Your task to perform on an android device: open app "Paramount+ | Peak Streaming" Image 0: 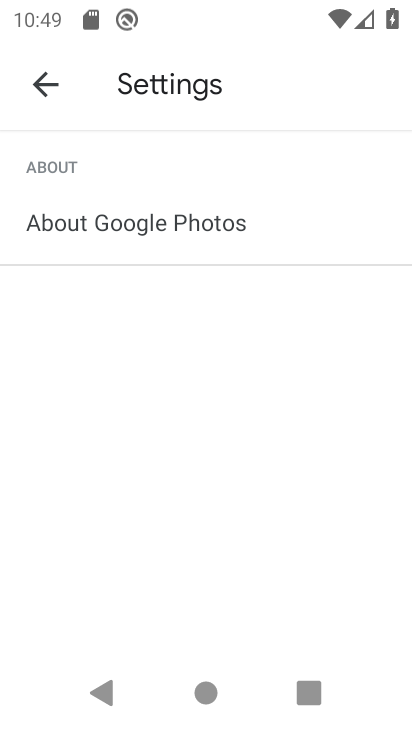
Step 0: press home button
Your task to perform on an android device: open app "Paramount+ | Peak Streaming" Image 1: 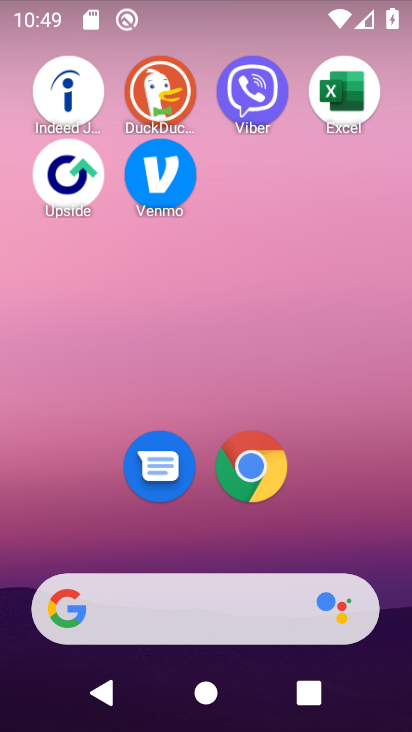
Step 1: drag from (241, 684) to (240, 58)
Your task to perform on an android device: open app "Paramount+ | Peak Streaming" Image 2: 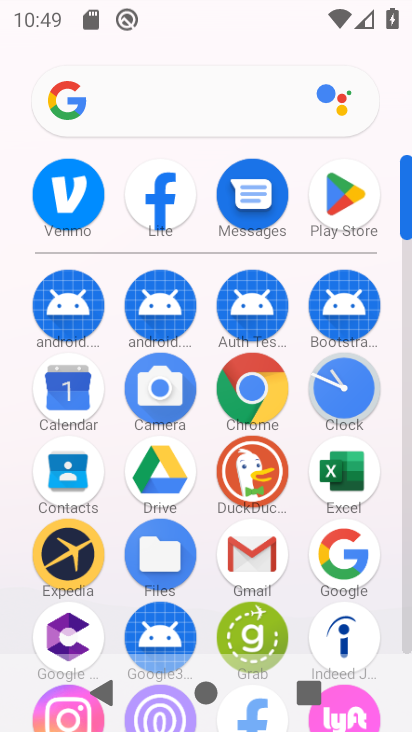
Step 2: click (343, 187)
Your task to perform on an android device: open app "Paramount+ | Peak Streaming" Image 3: 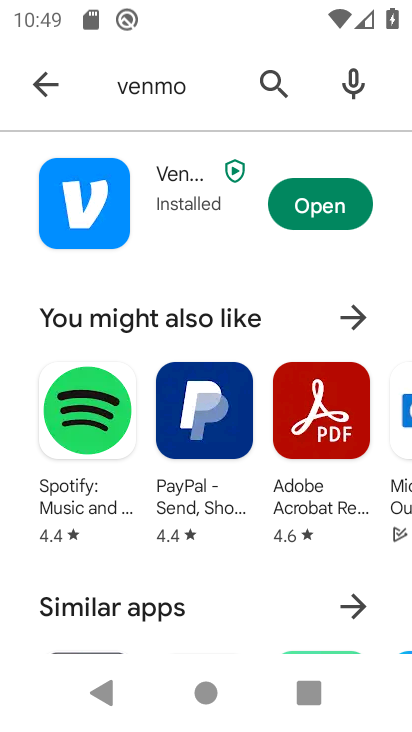
Step 3: click (271, 83)
Your task to perform on an android device: open app "Paramount+ | Peak Streaming" Image 4: 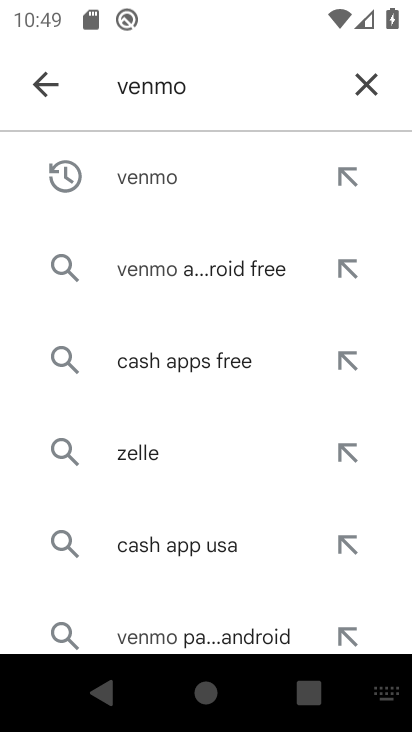
Step 4: click (365, 80)
Your task to perform on an android device: open app "Paramount+ | Peak Streaming" Image 5: 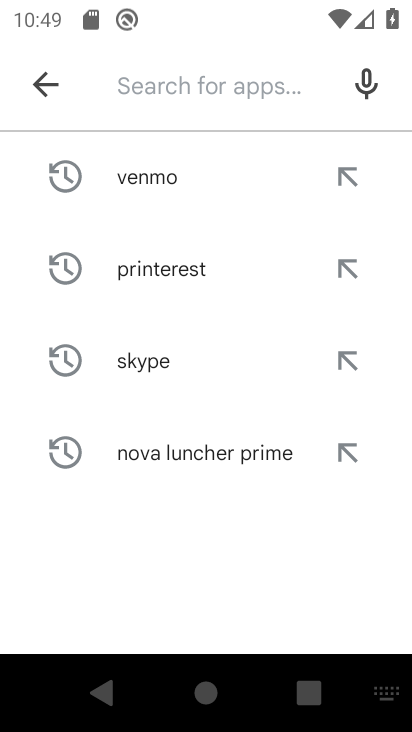
Step 5: type "Paramount+ | Peak Streaming"
Your task to perform on an android device: open app "Paramount+ | Peak Streaming" Image 6: 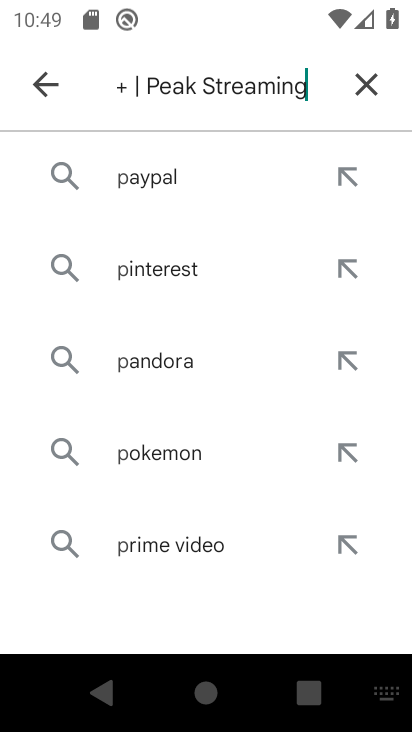
Step 6: type ""
Your task to perform on an android device: open app "Paramount+ | Peak Streaming" Image 7: 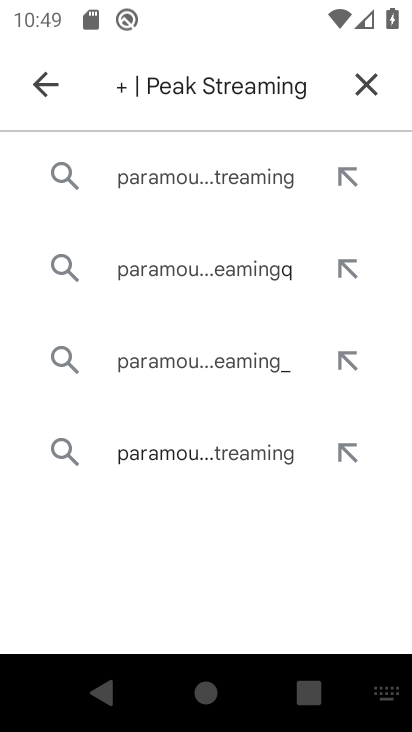
Step 7: click (238, 171)
Your task to perform on an android device: open app "Paramount+ | Peak Streaming" Image 8: 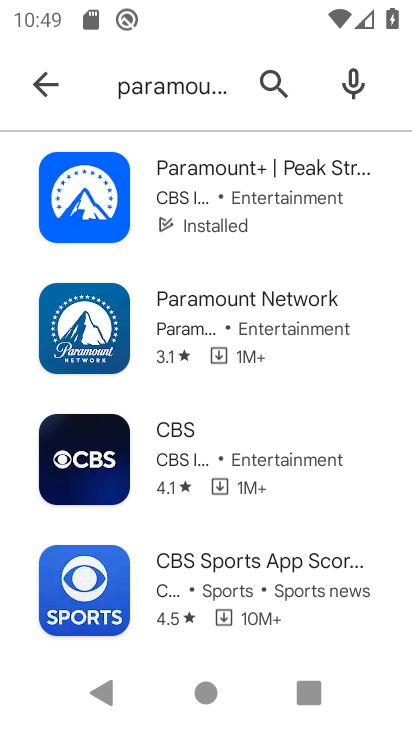
Step 8: click (238, 172)
Your task to perform on an android device: open app "Paramount+ | Peak Streaming" Image 9: 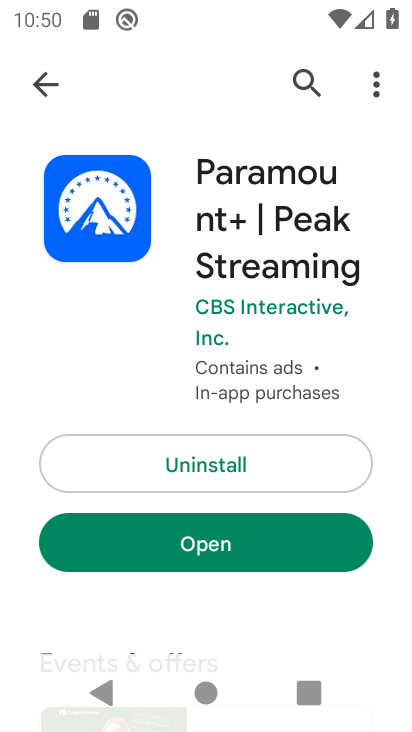
Step 9: click (215, 544)
Your task to perform on an android device: open app "Paramount+ | Peak Streaming" Image 10: 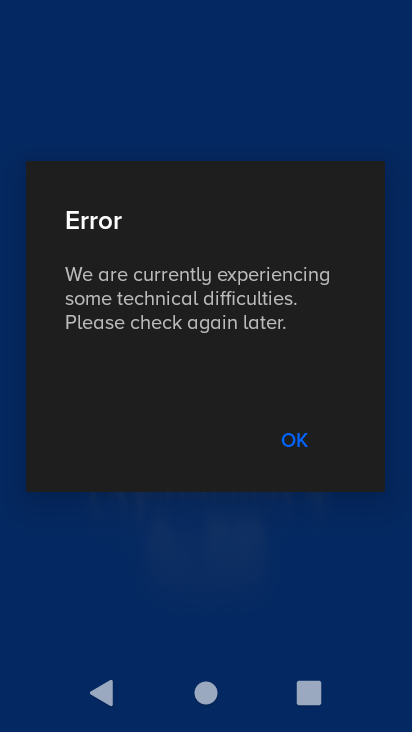
Step 10: task complete